Your task to perform on an android device: Go to battery settings Image 0: 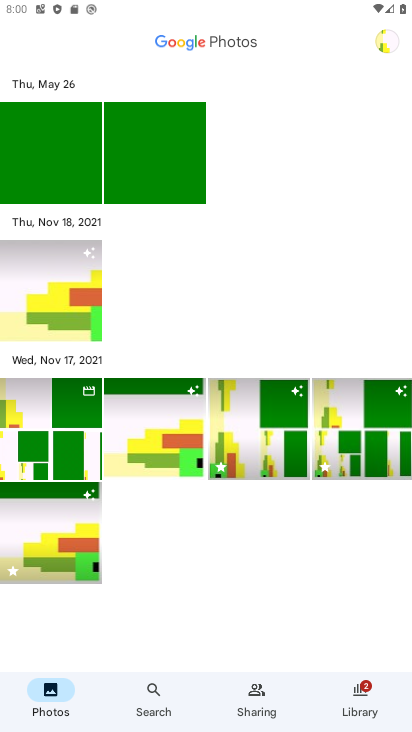
Step 0: press home button
Your task to perform on an android device: Go to battery settings Image 1: 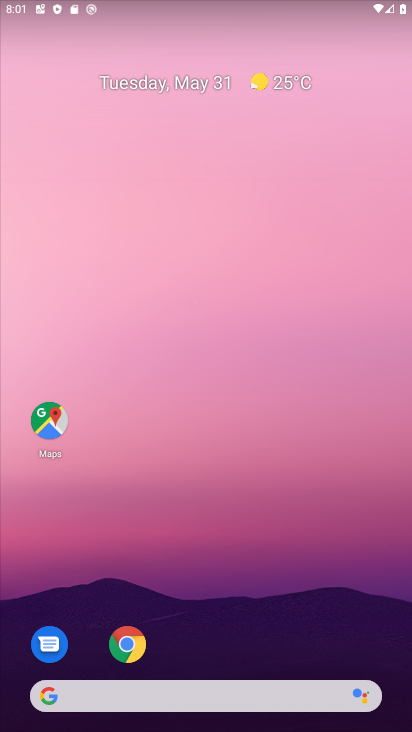
Step 1: drag from (239, 715) to (247, 39)
Your task to perform on an android device: Go to battery settings Image 2: 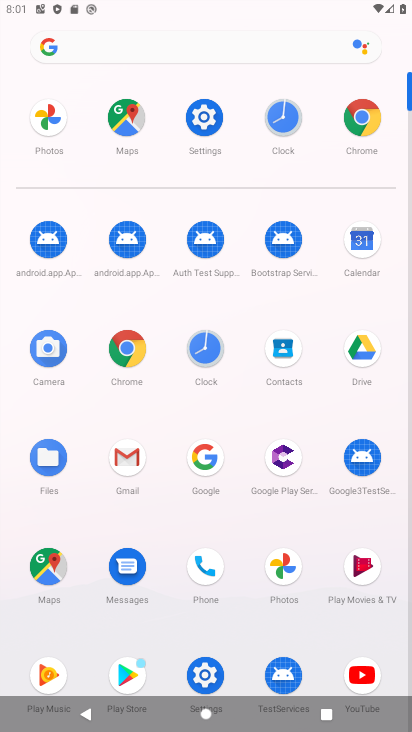
Step 2: drag from (206, 101) to (249, 497)
Your task to perform on an android device: Go to battery settings Image 3: 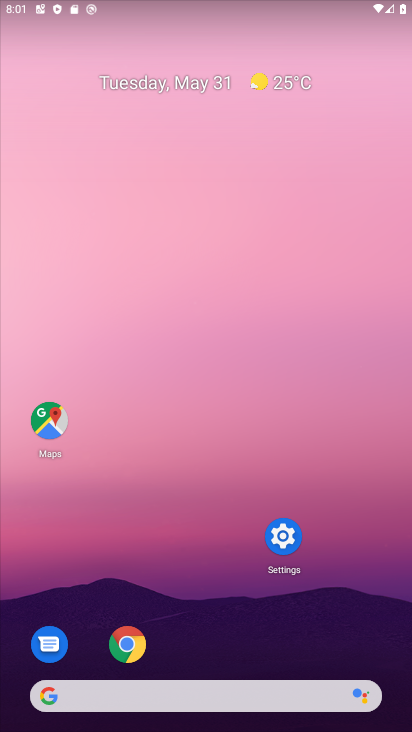
Step 3: click (281, 533)
Your task to perform on an android device: Go to battery settings Image 4: 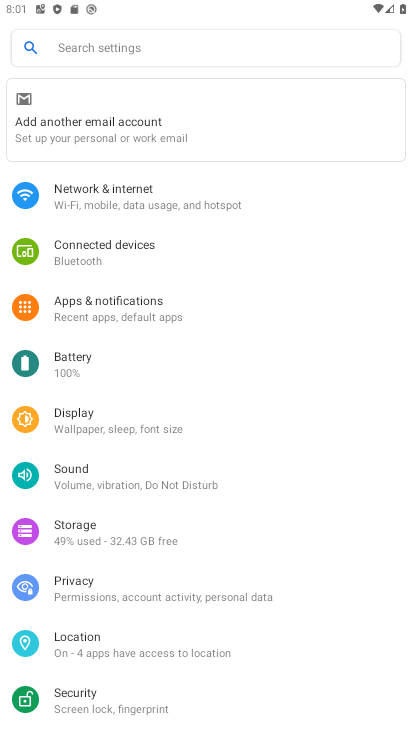
Step 4: click (98, 373)
Your task to perform on an android device: Go to battery settings Image 5: 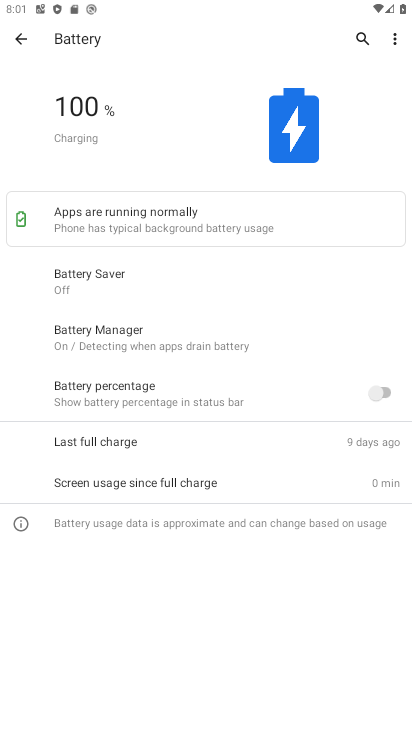
Step 5: task complete